Your task to perform on an android device: Open Chrome and go to the settings page Image 0: 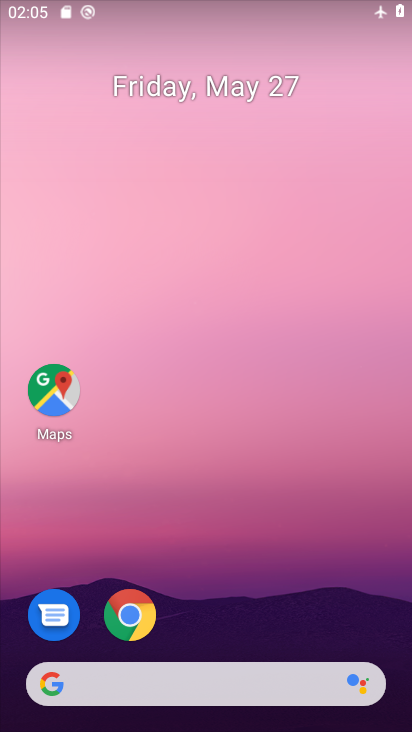
Step 0: drag from (376, 635) to (366, 197)
Your task to perform on an android device: Open Chrome and go to the settings page Image 1: 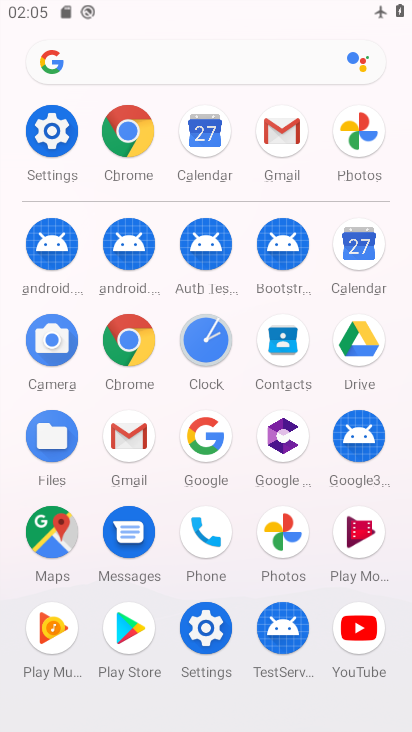
Step 1: click (132, 351)
Your task to perform on an android device: Open Chrome and go to the settings page Image 2: 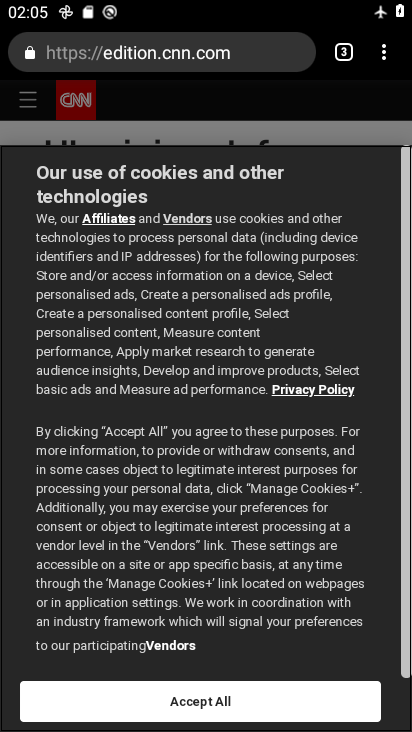
Step 2: click (384, 58)
Your task to perform on an android device: Open Chrome and go to the settings page Image 3: 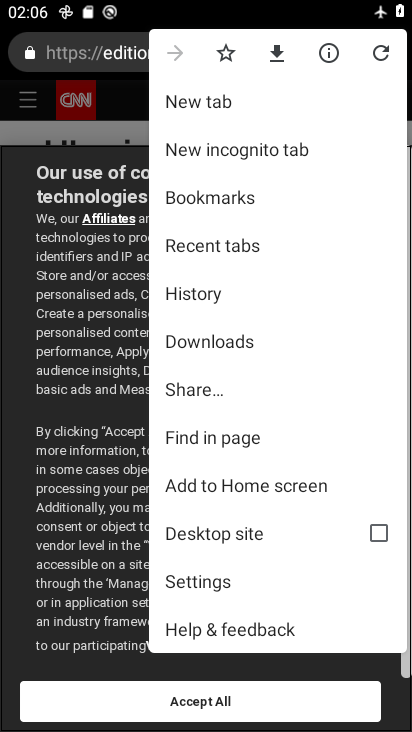
Step 3: task complete